Your task to perform on an android device: Search for seafood restaurants on Google Maps Image 0: 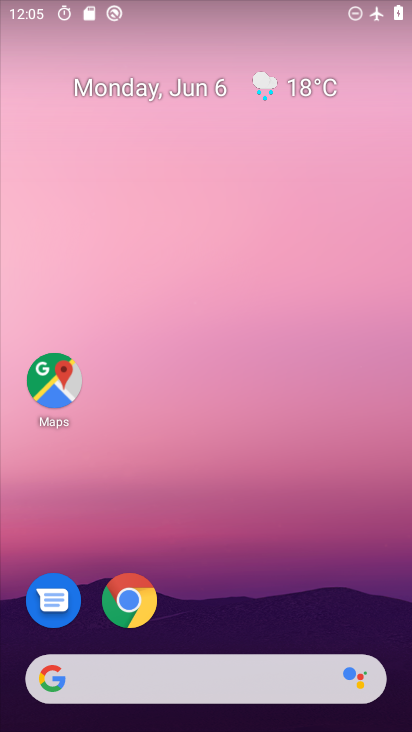
Step 0: click (49, 365)
Your task to perform on an android device: Search for seafood restaurants on Google Maps Image 1: 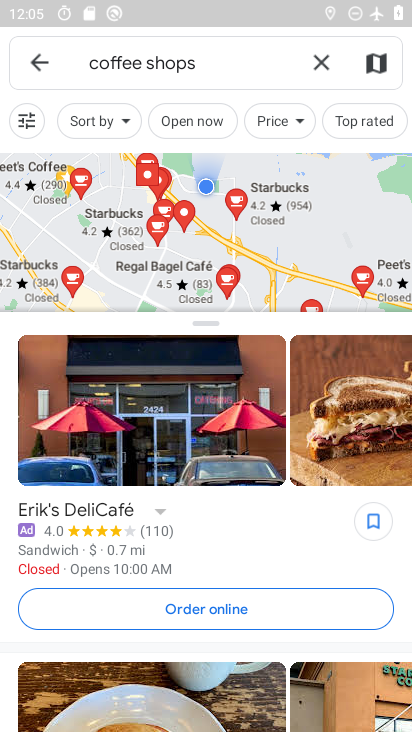
Step 1: click (314, 66)
Your task to perform on an android device: Search for seafood restaurants on Google Maps Image 2: 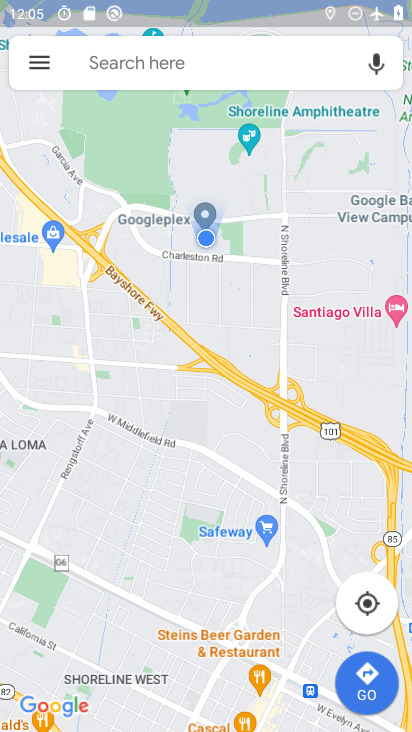
Step 2: click (144, 79)
Your task to perform on an android device: Search for seafood restaurants on Google Maps Image 3: 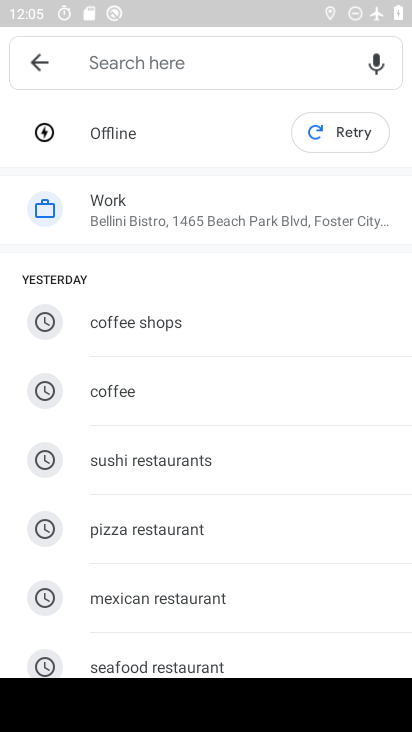
Step 3: click (201, 661)
Your task to perform on an android device: Search for seafood restaurants on Google Maps Image 4: 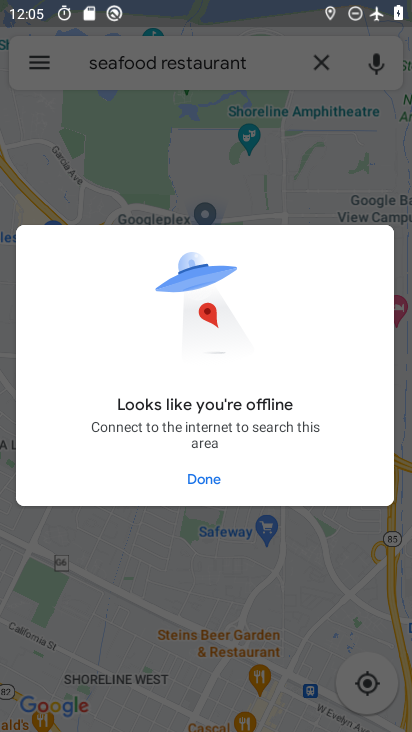
Step 4: task complete